Your task to perform on an android device: Open calendar and show me the fourth week of next month Image 0: 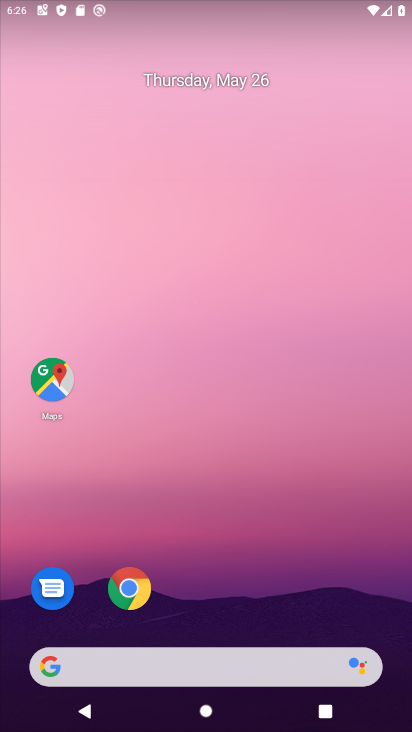
Step 0: click (409, 400)
Your task to perform on an android device: Open calendar and show me the fourth week of next month Image 1: 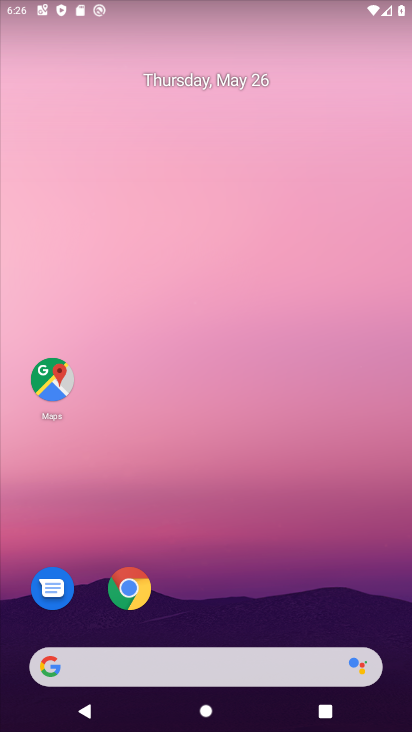
Step 1: drag from (360, 614) to (262, 45)
Your task to perform on an android device: Open calendar and show me the fourth week of next month Image 2: 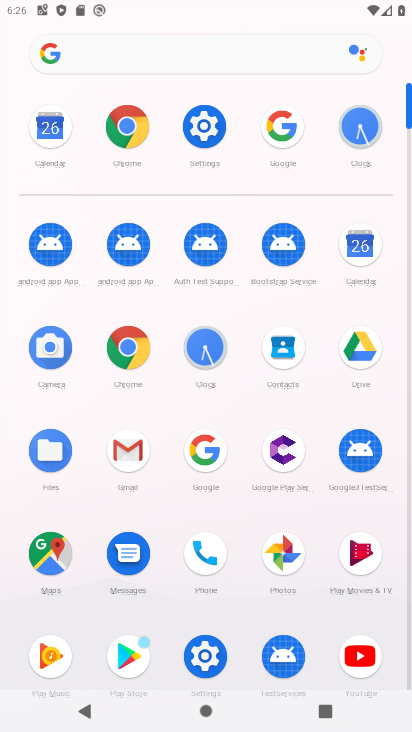
Step 2: click (353, 267)
Your task to perform on an android device: Open calendar and show me the fourth week of next month Image 3: 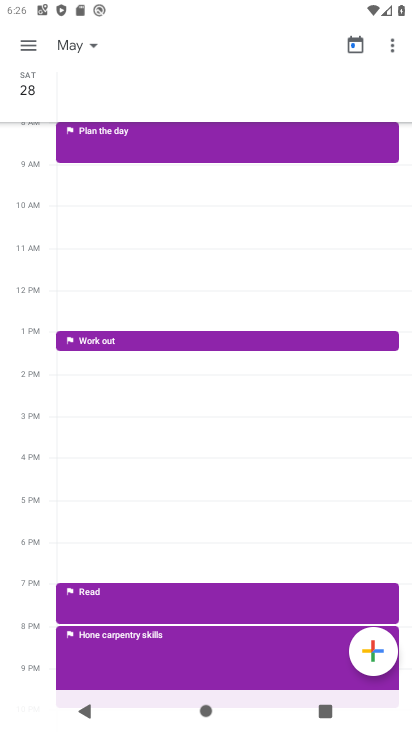
Step 3: click (66, 37)
Your task to perform on an android device: Open calendar and show me the fourth week of next month Image 4: 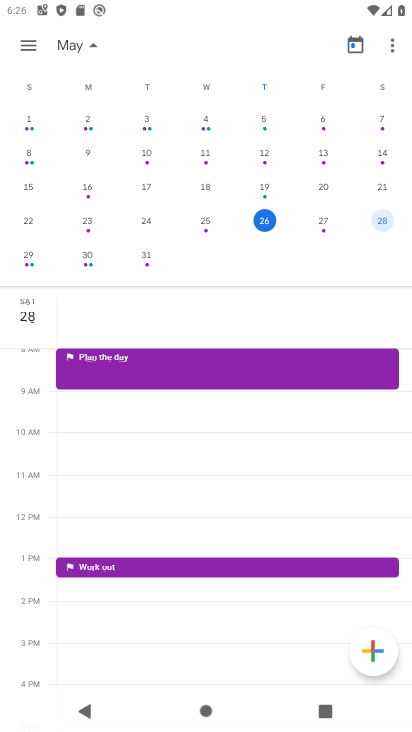
Step 4: drag from (320, 216) to (0, 148)
Your task to perform on an android device: Open calendar and show me the fourth week of next month Image 5: 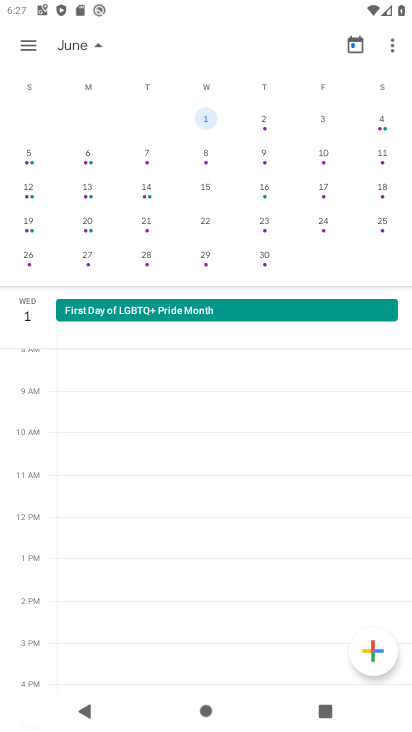
Step 5: click (30, 257)
Your task to perform on an android device: Open calendar and show me the fourth week of next month Image 6: 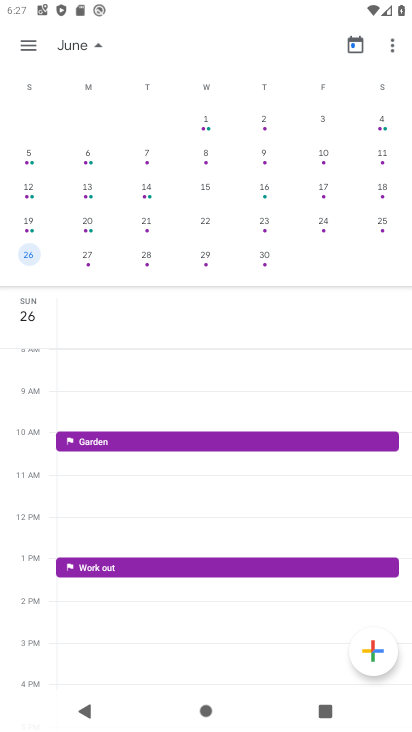
Step 6: task complete